Your task to perform on an android device: allow notifications from all sites in the chrome app Image 0: 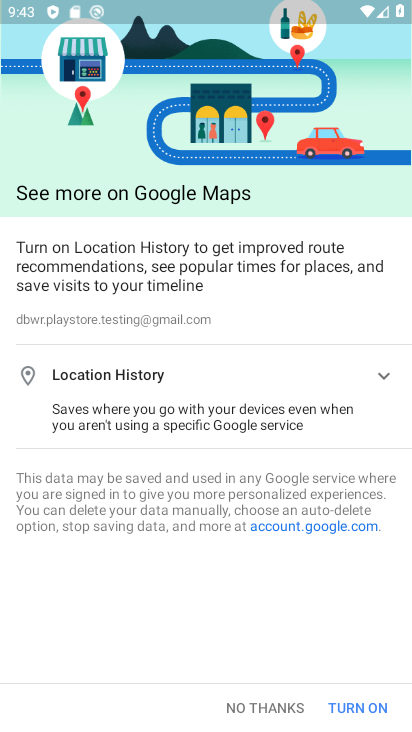
Step 0: press home button
Your task to perform on an android device: allow notifications from all sites in the chrome app Image 1: 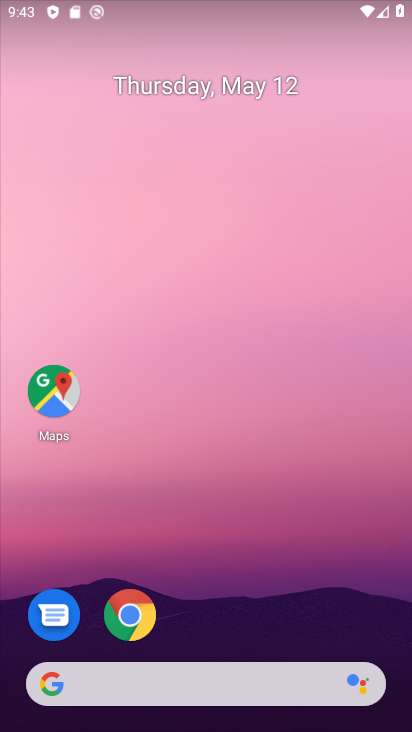
Step 1: click (129, 617)
Your task to perform on an android device: allow notifications from all sites in the chrome app Image 2: 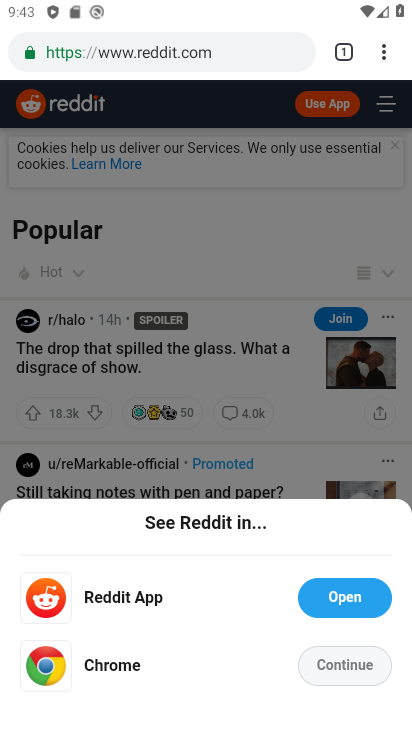
Step 2: click (385, 58)
Your task to perform on an android device: allow notifications from all sites in the chrome app Image 3: 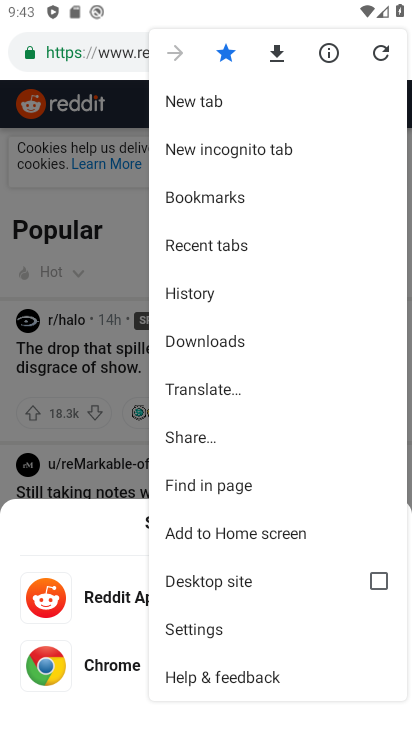
Step 3: click (204, 623)
Your task to perform on an android device: allow notifications from all sites in the chrome app Image 4: 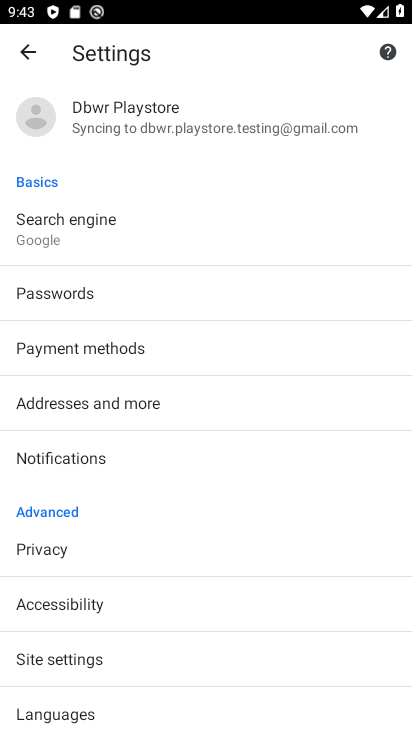
Step 4: drag from (172, 664) to (181, 375)
Your task to perform on an android device: allow notifications from all sites in the chrome app Image 5: 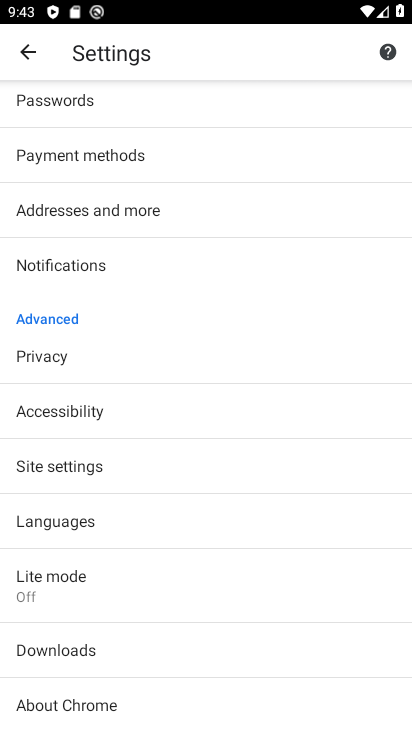
Step 5: click (79, 464)
Your task to perform on an android device: allow notifications from all sites in the chrome app Image 6: 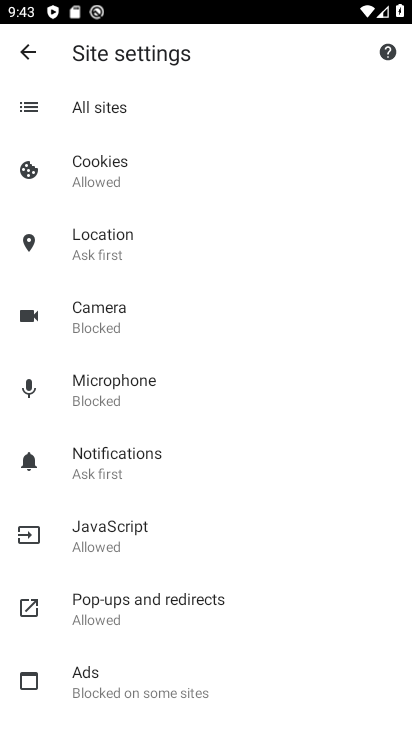
Step 6: click (135, 451)
Your task to perform on an android device: allow notifications from all sites in the chrome app Image 7: 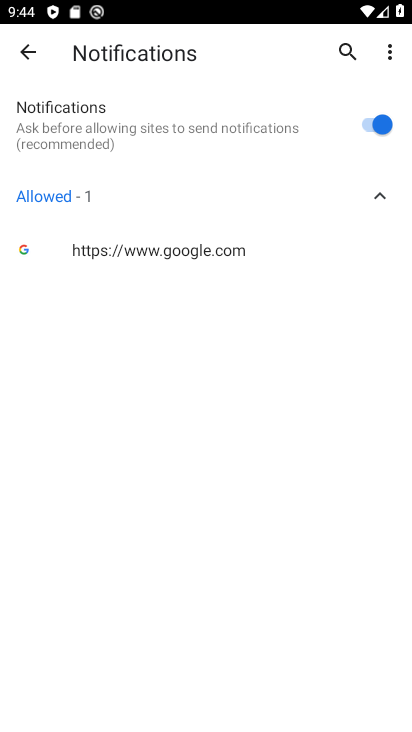
Step 7: task complete